Your task to perform on an android device: all mails in gmail Image 0: 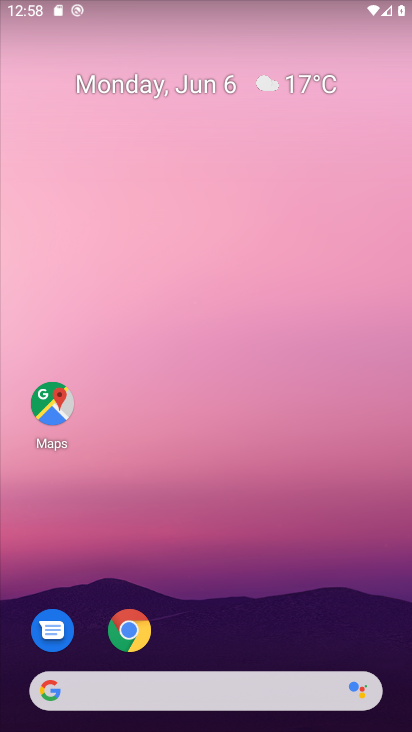
Step 0: drag from (185, 707) to (131, 1)
Your task to perform on an android device: all mails in gmail Image 1: 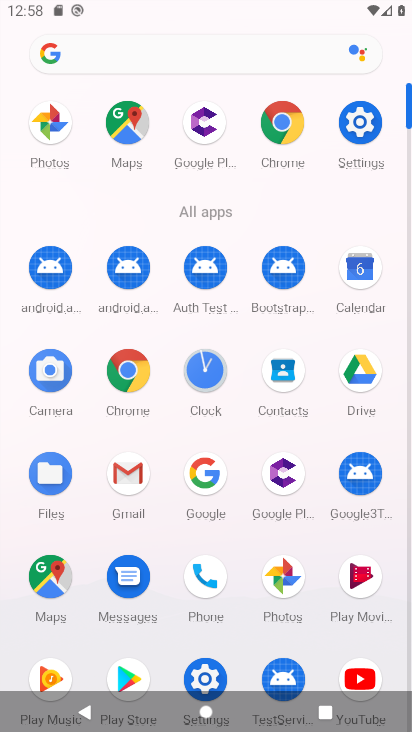
Step 1: click (129, 485)
Your task to perform on an android device: all mails in gmail Image 2: 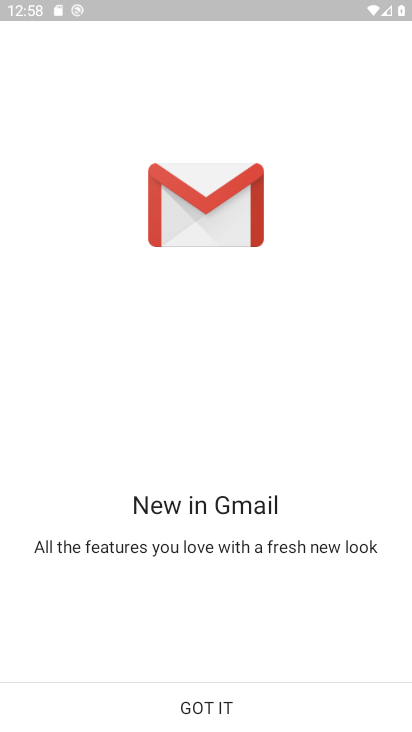
Step 2: click (214, 717)
Your task to perform on an android device: all mails in gmail Image 3: 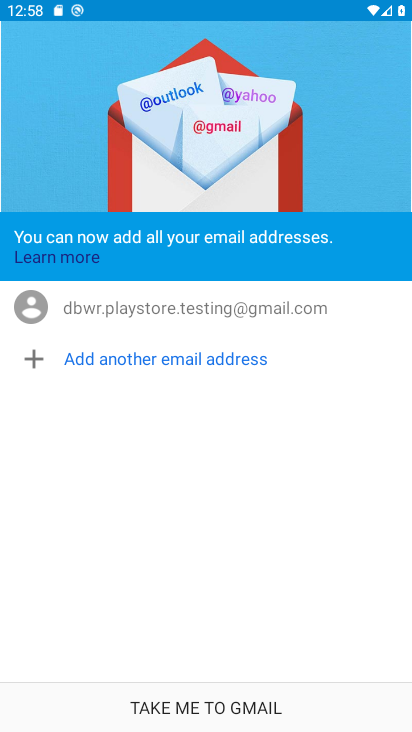
Step 3: click (211, 706)
Your task to perform on an android device: all mails in gmail Image 4: 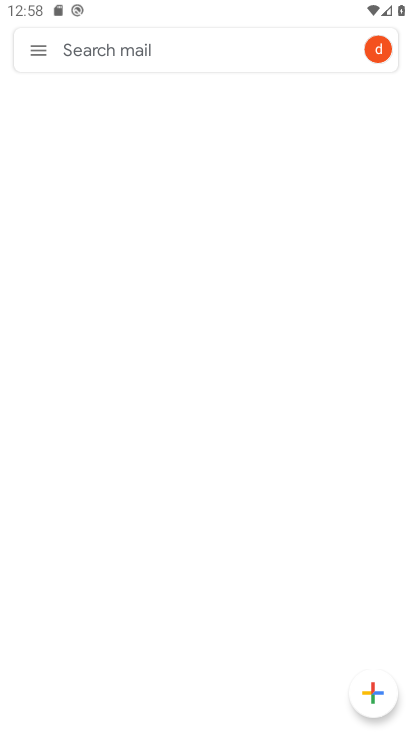
Step 4: click (36, 42)
Your task to perform on an android device: all mails in gmail Image 5: 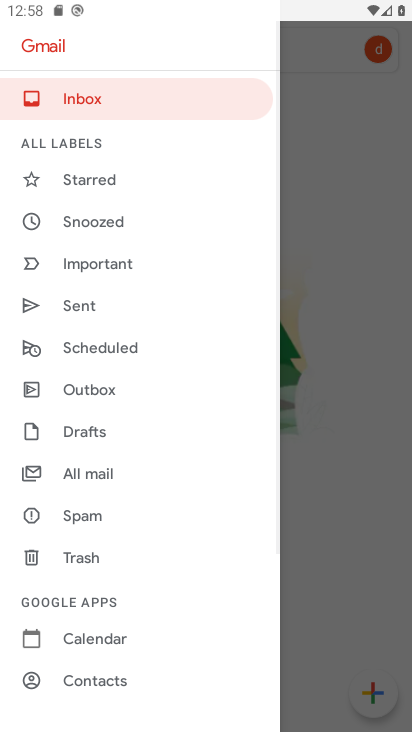
Step 5: drag from (133, 177) to (101, 685)
Your task to perform on an android device: all mails in gmail Image 6: 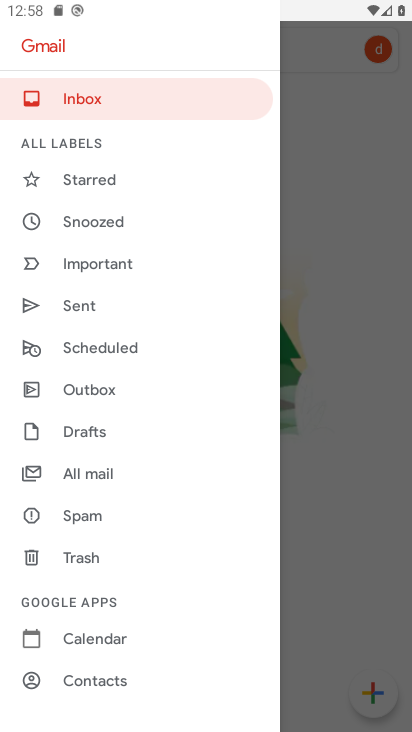
Step 6: click (98, 475)
Your task to perform on an android device: all mails in gmail Image 7: 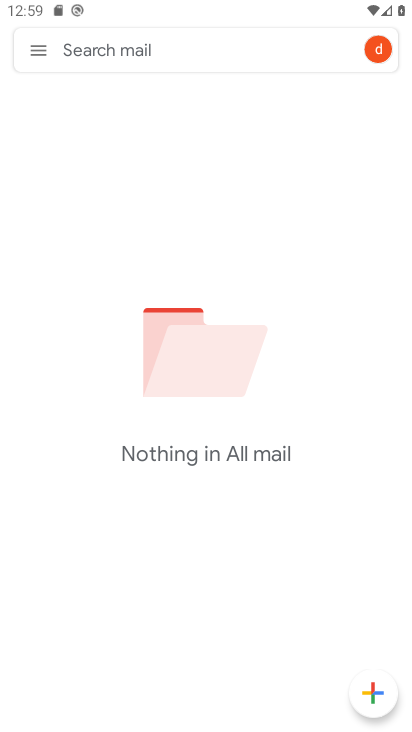
Step 7: task complete